Your task to perform on an android device: make emails show in primary in the gmail app Image 0: 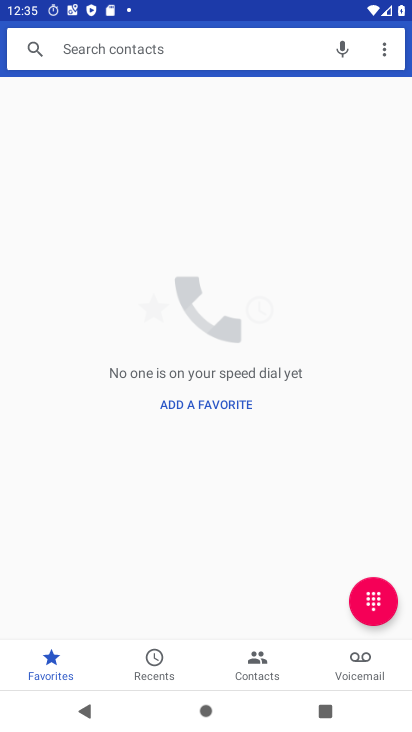
Step 0: type ""
Your task to perform on an android device: make emails show in primary in the gmail app Image 1: 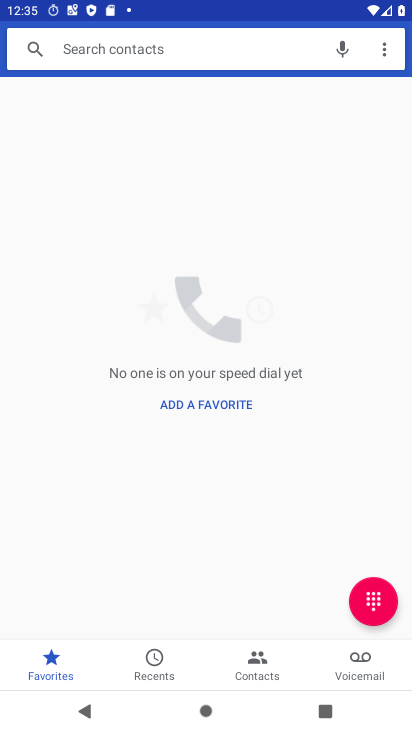
Step 1: press home button
Your task to perform on an android device: make emails show in primary in the gmail app Image 2: 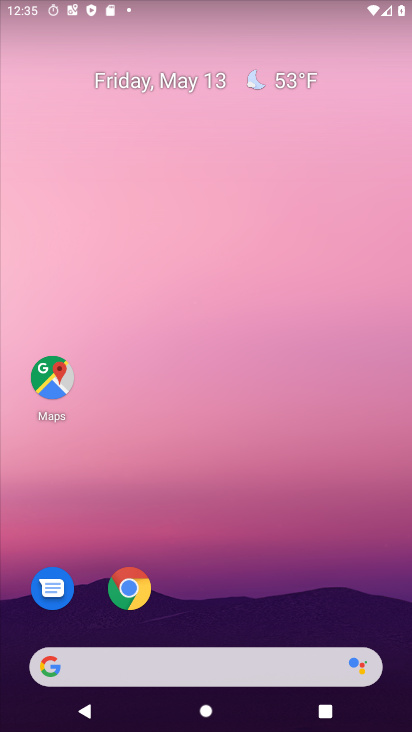
Step 2: drag from (298, 577) to (346, 108)
Your task to perform on an android device: make emails show in primary in the gmail app Image 3: 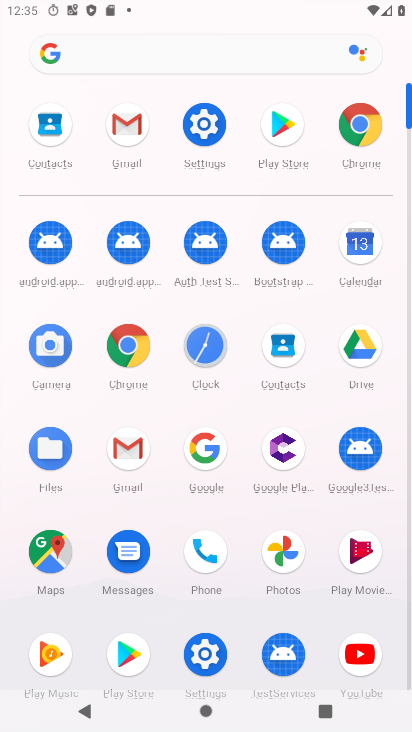
Step 3: click (133, 451)
Your task to perform on an android device: make emails show in primary in the gmail app Image 4: 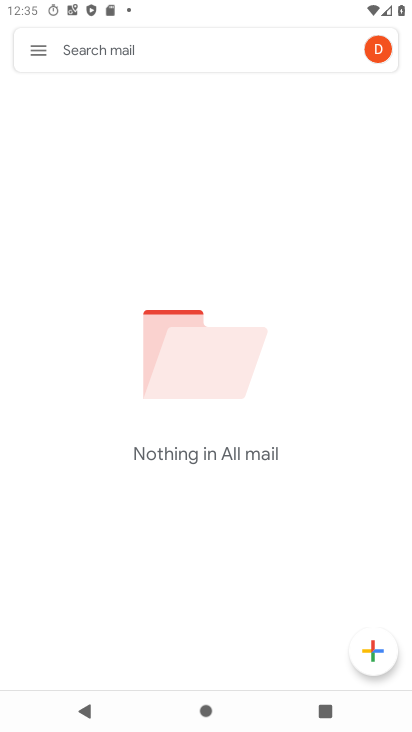
Step 4: click (43, 49)
Your task to perform on an android device: make emails show in primary in the gmail app Image 5: 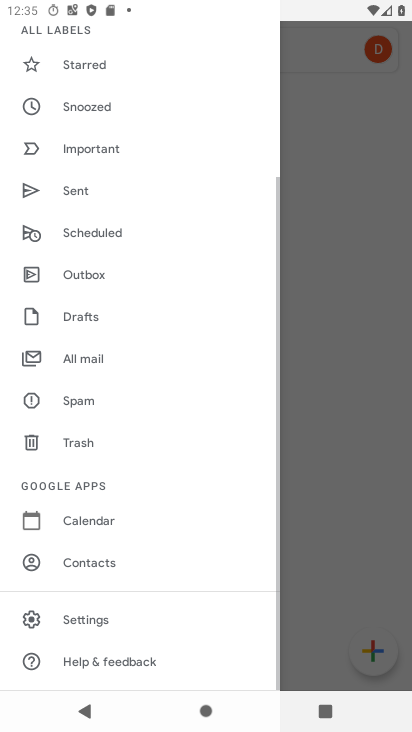
Step 5: drag from (123, 655) to (207, 310)
Your task to perform on an android device: make emails show in primary in the gmail app Image 6: 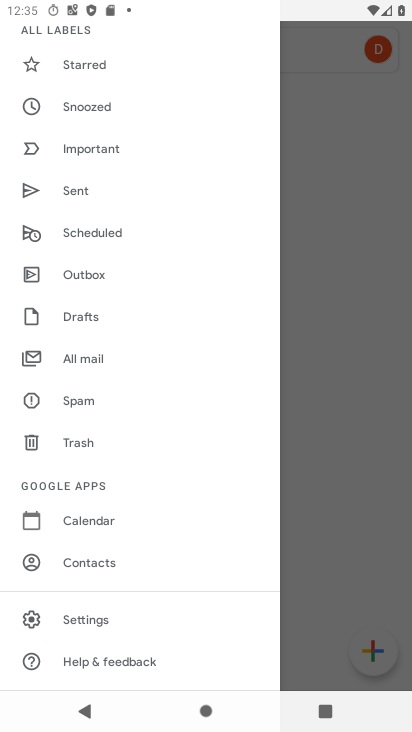
Step 6: click (68, 621)
Your task to perform on an android device: make emails show in primary in the gmail app Image 7: 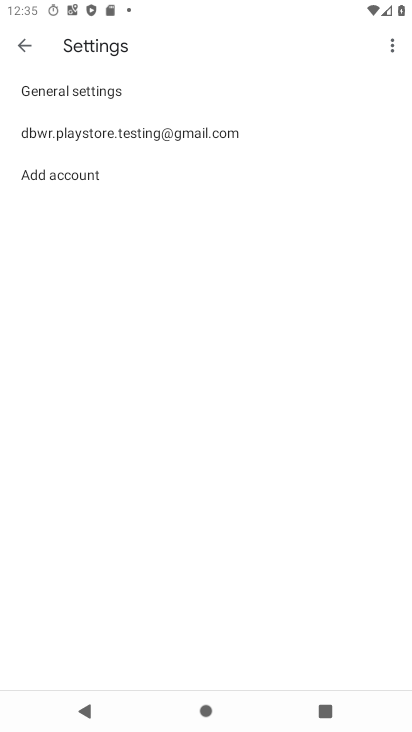
Step 7: click (243, 144)
Your task to perform on an android device: make emails show in primary in the gmail app Image 8: 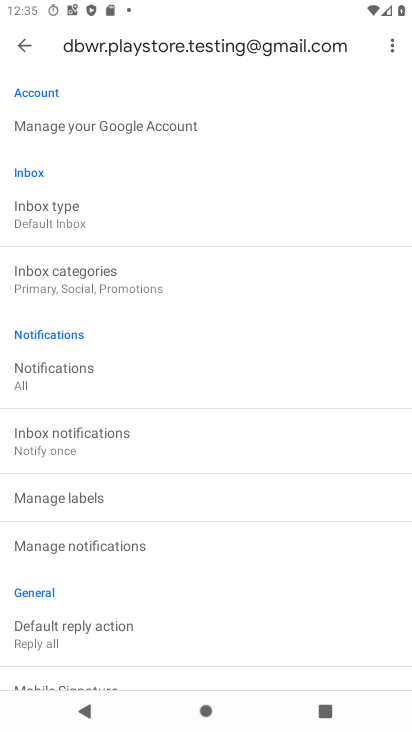
Step 8: task complete